Your task to perform on an android device: Search for pizza restaurants on Maps Image 0: 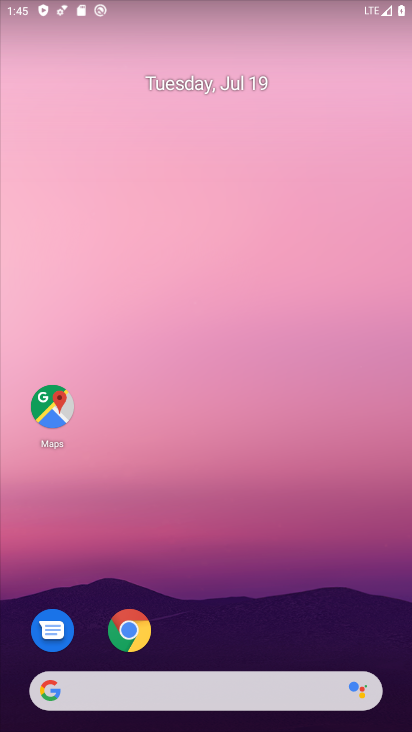
Step 0: click (51, 407)
Your task to perform on an android device: Search for pizza restaurants on Maps Image 1: 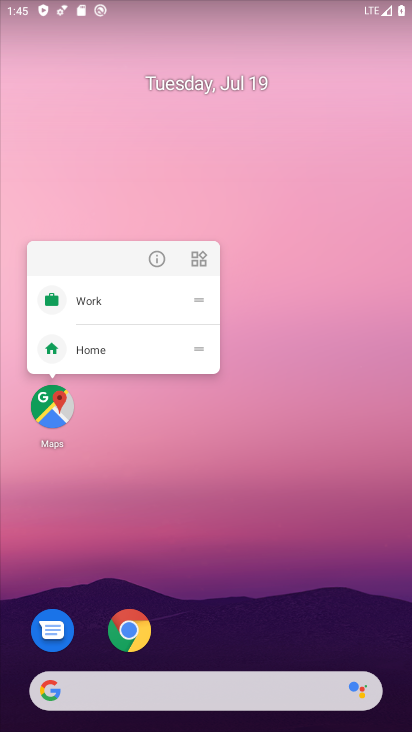
Step 1: click (47, 406)
Your task to perform on an android device: Search for pizza restaurants on Maps Image 2: 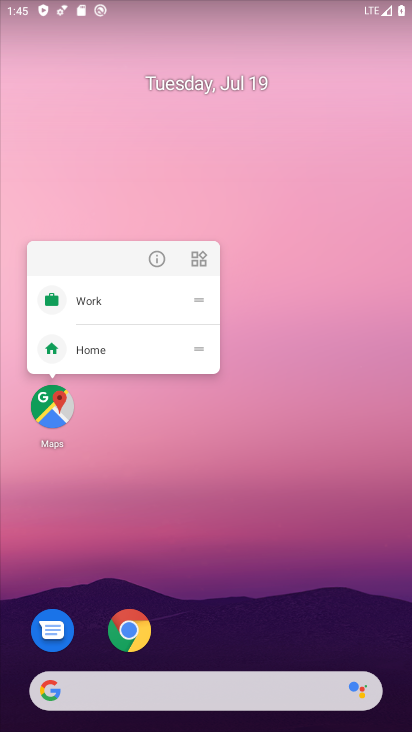
Step 2: click (53, 395)
Your task to perform on an android device: Search for pizza restaurants on Maps Image 3: 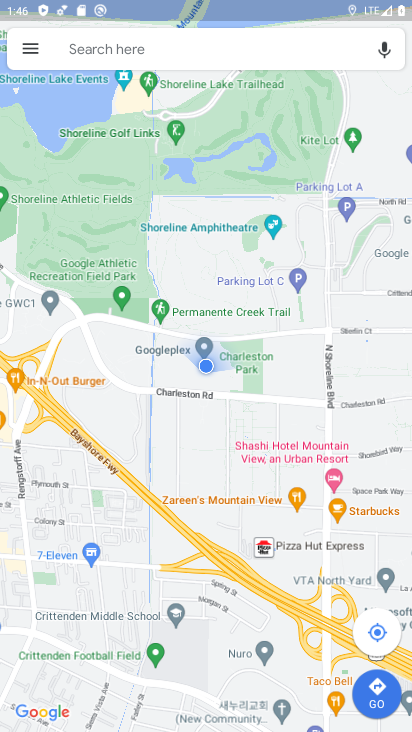
Step 3: click (96, 36)
Your task to perform on an android device: Search for pizza restaurants on Maps Image 4: 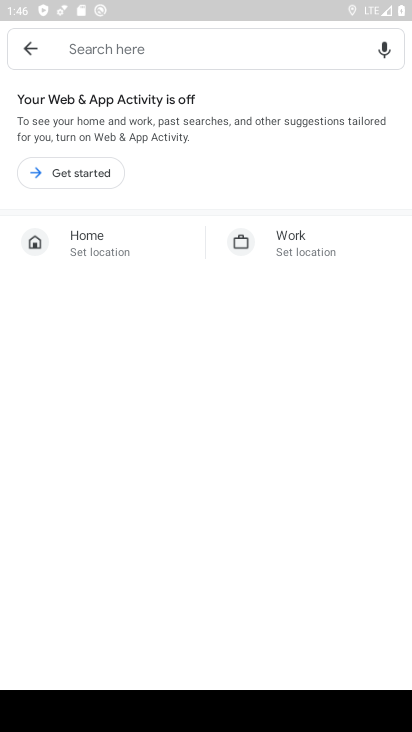
Step 4: type "pizza"
Your task to perform on an android device: Search for pizza restaurants on Maps Image 5: 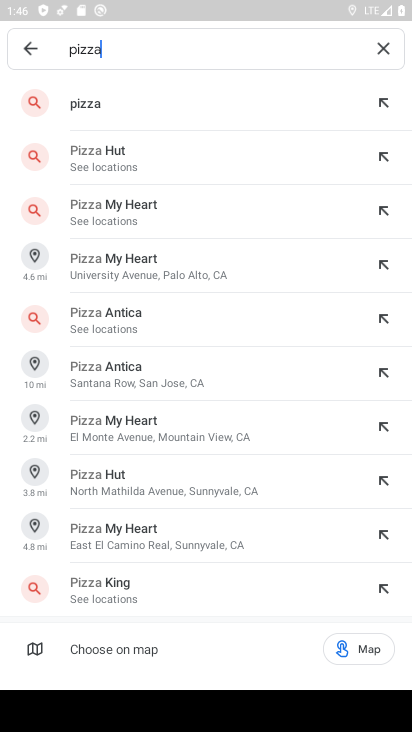
Step 5: type " "
Your task to perform on an android device: Search for pizza restaurants on Maps Image 6: 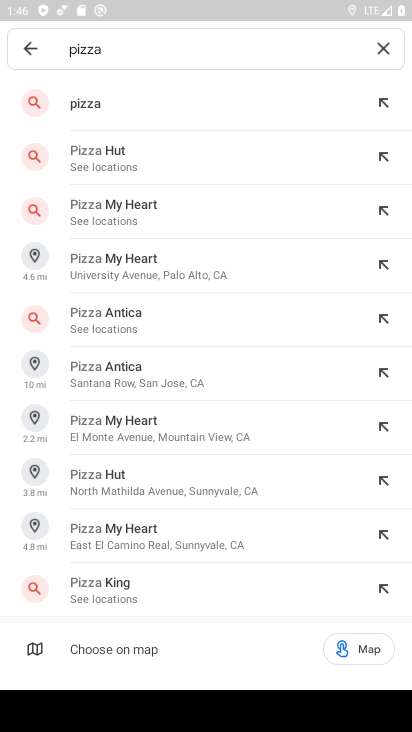
Step 6: type "rstaurant"
Your task to perform on an android device: Search for pizza restaurants on Maps Image 7: 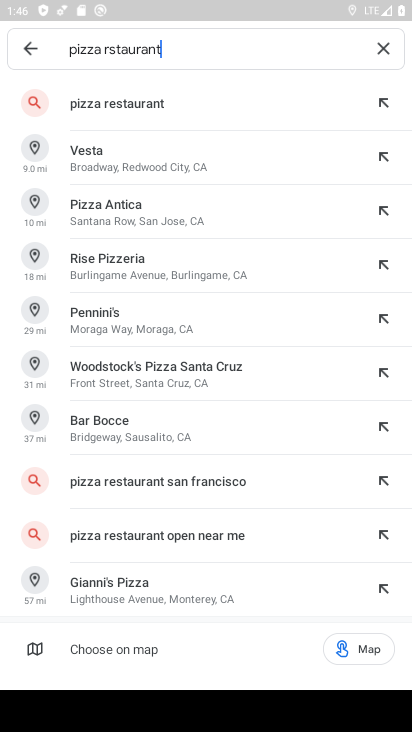
Step 7: click (161, 107)
Your task to perform on an android device: Search for pizza restaurants on Maps Image 8: 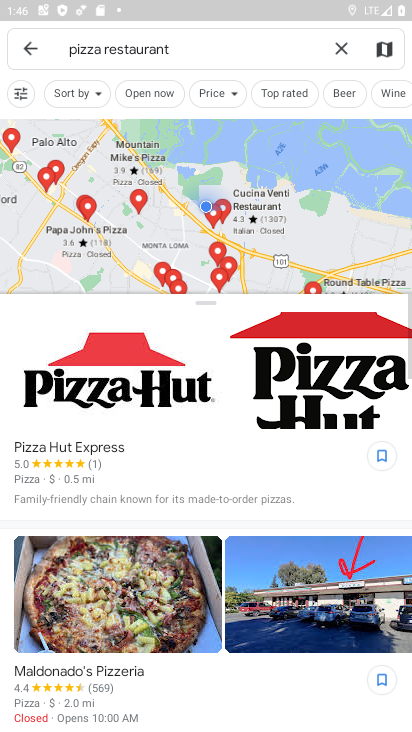
Step 8: task complete